Your task to perform on an android device: open chrome privacy settings Image 0: 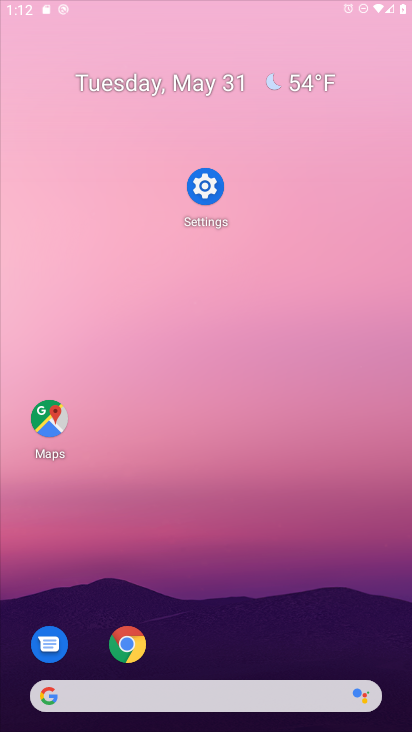
Step 0: press home button
Your task to perform on an android device: open chrome privacy settings Image 1: 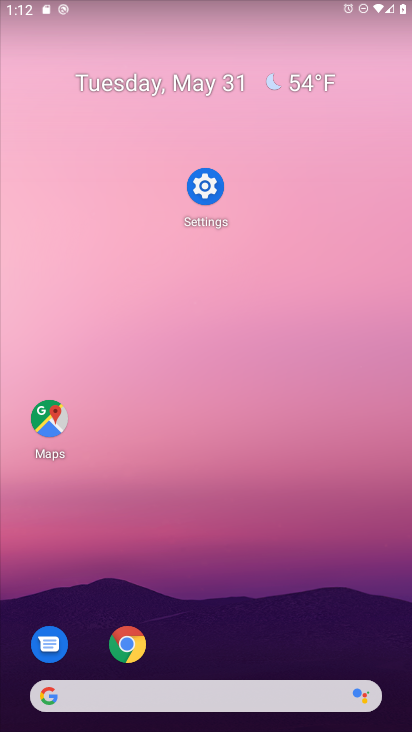
Step 1: click (119, 647)
Your task to perform on an android device: open chrome privacy settings Image 2: 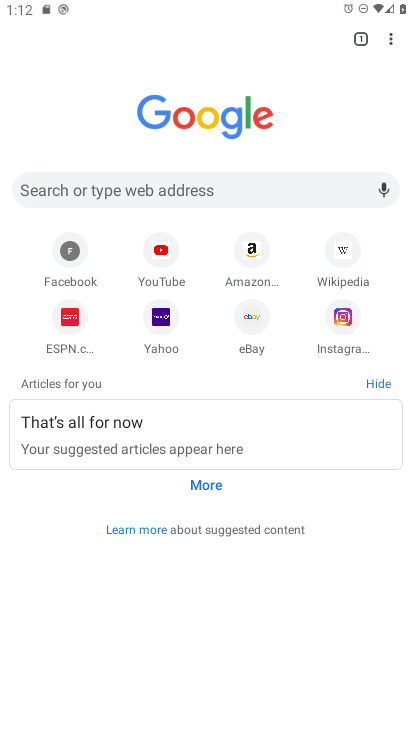
Step 2: drag from (395, 35) to (243, 327)
Your task to perform on an android device: open chrome privacy settings Image 3: 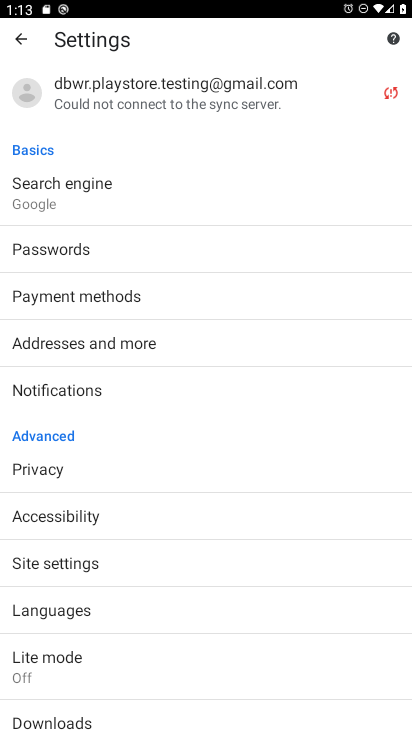
Step 3: click (31, 467)
Your task to perform on an android device: open chrome privacy settings Image 4: 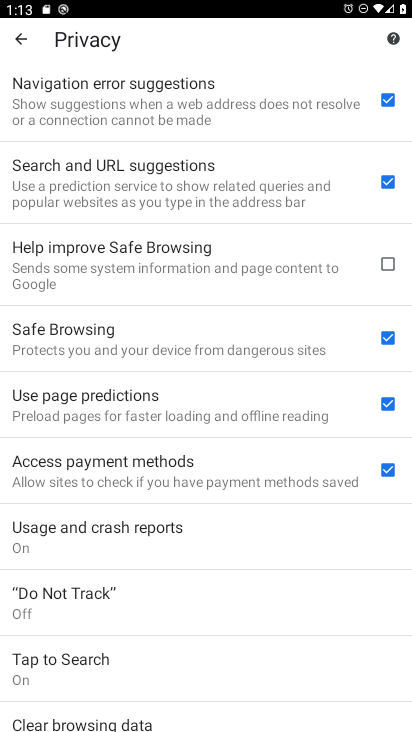
Step 4: task complete